Your task to perform on an android device: Go to eBay Image 0: 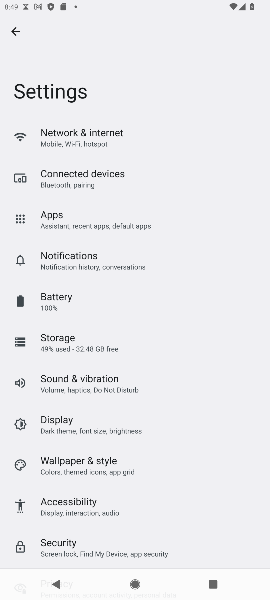
Step 0: press home button
Your task to perform on an android device: Go to eBay Image 1: 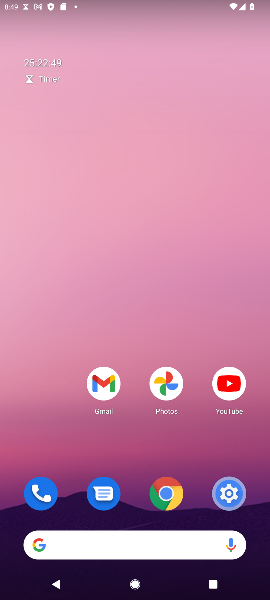
Step 1: drag from (71, 421) to (131, 0)
Your task to perform on an android device: Go to eBay Image 2: 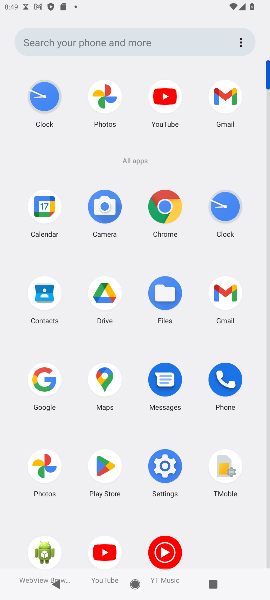
Step 2: click (164, 209)
Your task to perform on an android device: Go to eBay Image 3: 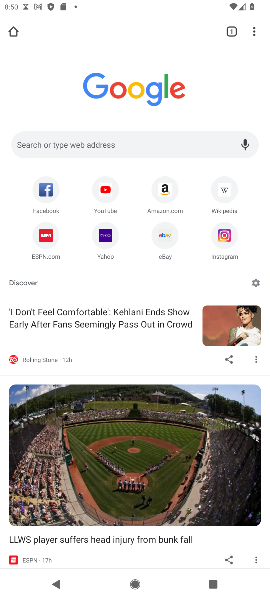
Step 3: click (161, 227)
Your task to perform on an android device: Go to eBay Image 4: 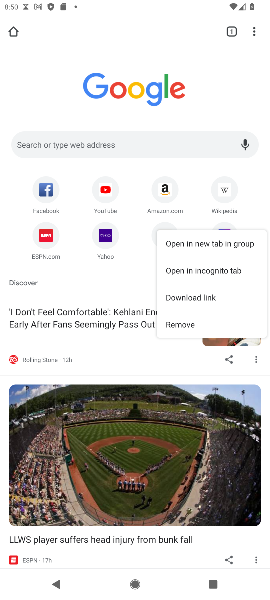
Step 4: click (78, 287)
Your task to perform on an android device: Go to eBay Image 5: 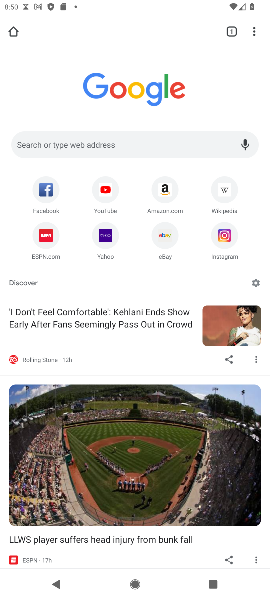
Step 5: click (150, 242)
Your task to perform on an android device: Go to eBay Image 6: 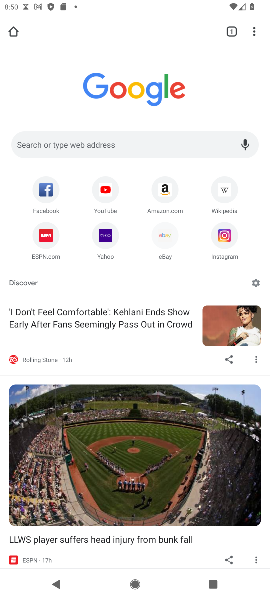
Step 6: click (167, 238)
Your task to perform on an android device: Go to eBay Image 7: 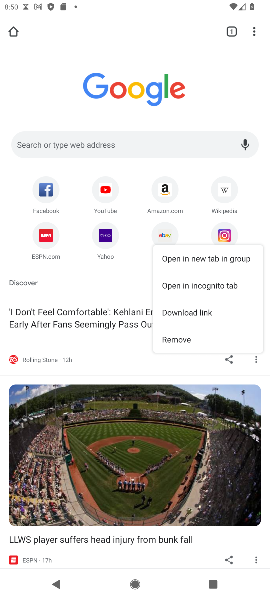
Step 7: click (167, 237)
Your task to perform on an android device: Go to eBay Image 8: 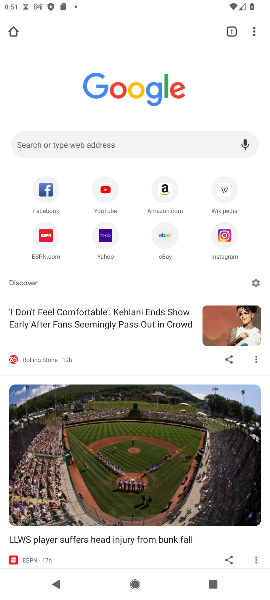
Step 8: click (167, 236)
Your task to perform on an android device: Go to eBay Image 9: 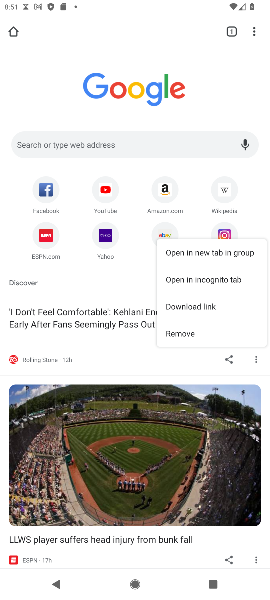
Step 9: click (167, 236)
Your task to perform on an android device: Go to eBay Image 10: 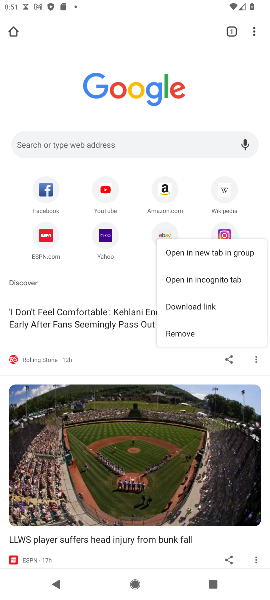
Step 10: click (165, 226)
Your task to perform on an android device: Go to eBay Image 11: 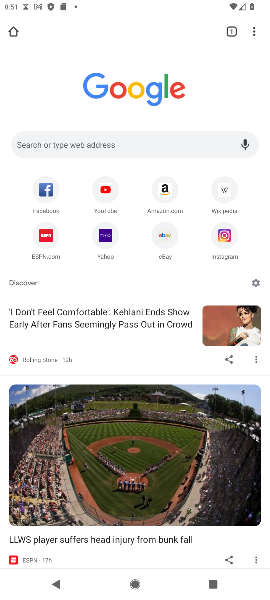
Step 11: click (165, 225)
Your task to perform on an android device: Go to eBay Image 12: 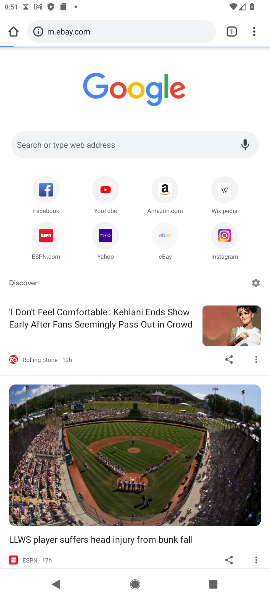
Step 12: click (165, 227)
Your task to perform on an android device: Go to eBay Image 13: 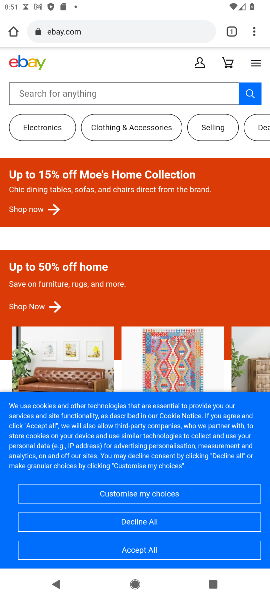
Step 13: task complete